Your task to perform on an android device: turn on notifications settings in the gmail app Image 0: 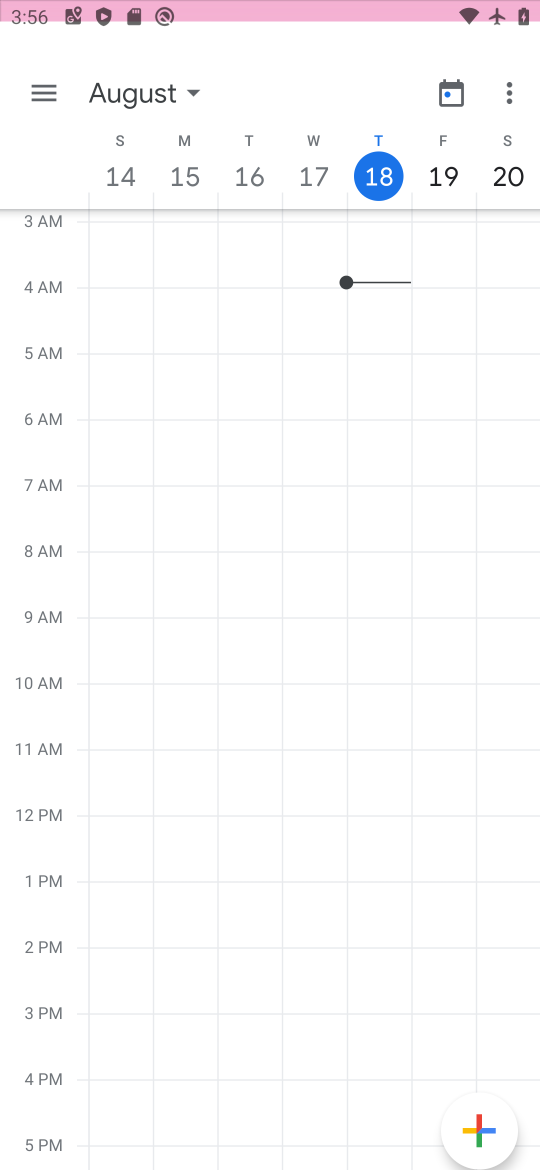
Step 0: click (440, 60)
Your task to perform on an android device: turn on notifications settings in the gmail app Image 1: 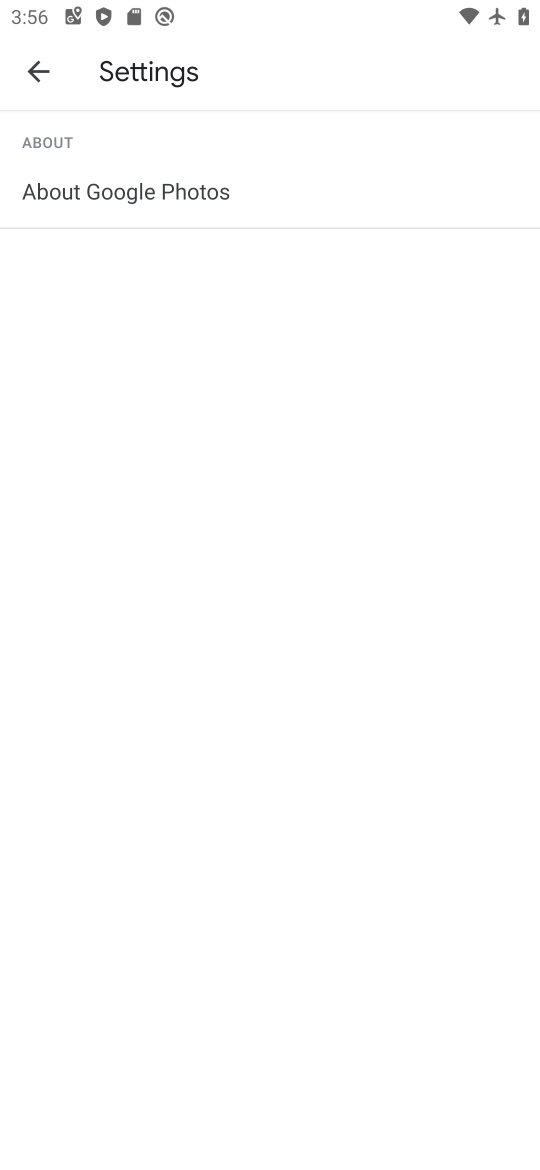
Step 1: press home button
Your task to perform on an android device: turn on notifications settings in the gmail app Image 2: 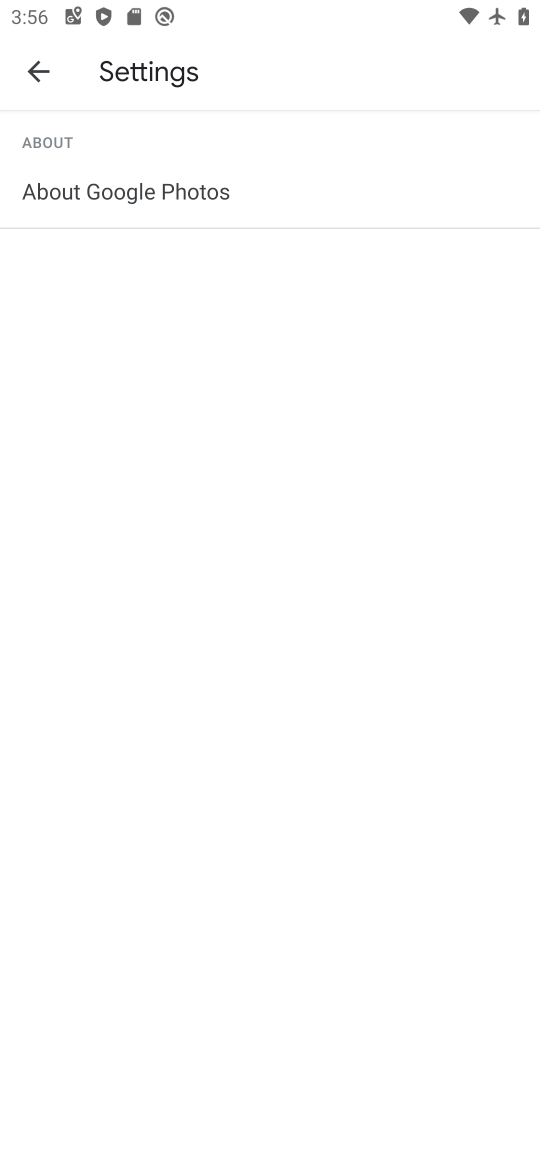
Step 2: press home button
Your task to perform on an android device: turn on notifications settings in the gmail app Image 3: 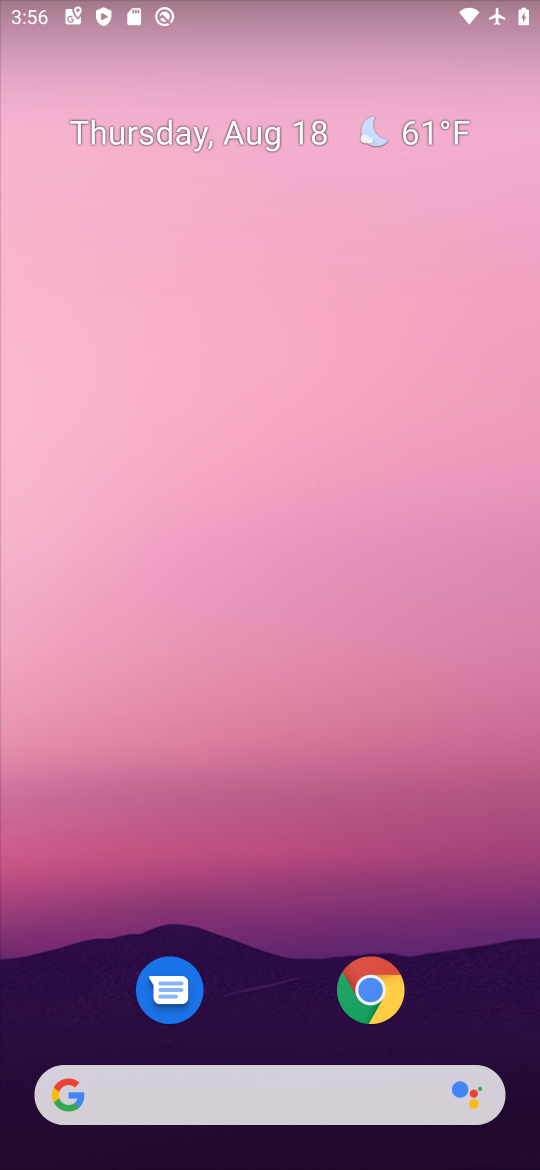
Step 3: drag from (246, 806) to (316, 62)
Your task to perform on an android device: turn on notifications settings in the gmail app Image 4: 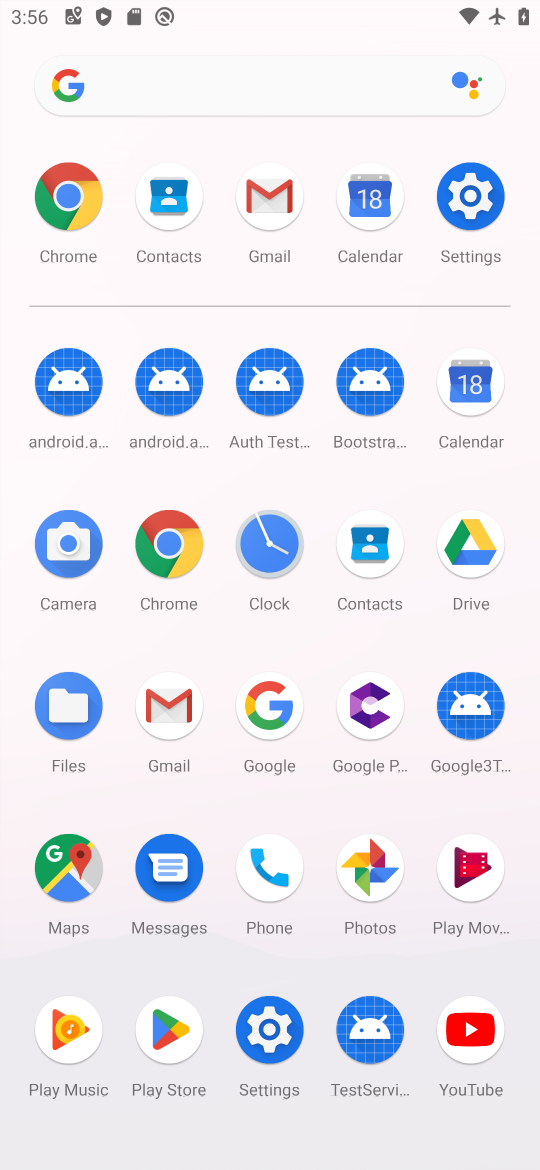
Step 4: click (181, 710)
Your task to perform on an android device: turn on notifications settings in the gmail app Image 5: 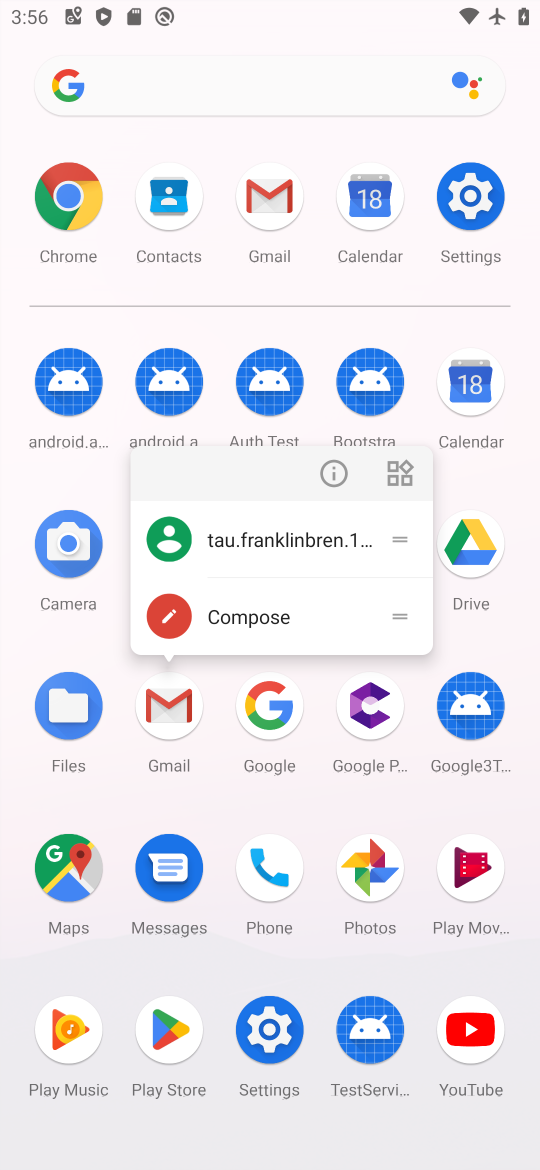
Step 5: click (165, 707)
Your task to perform on an android device: turn on notifications settings in the gmail app Image 6: 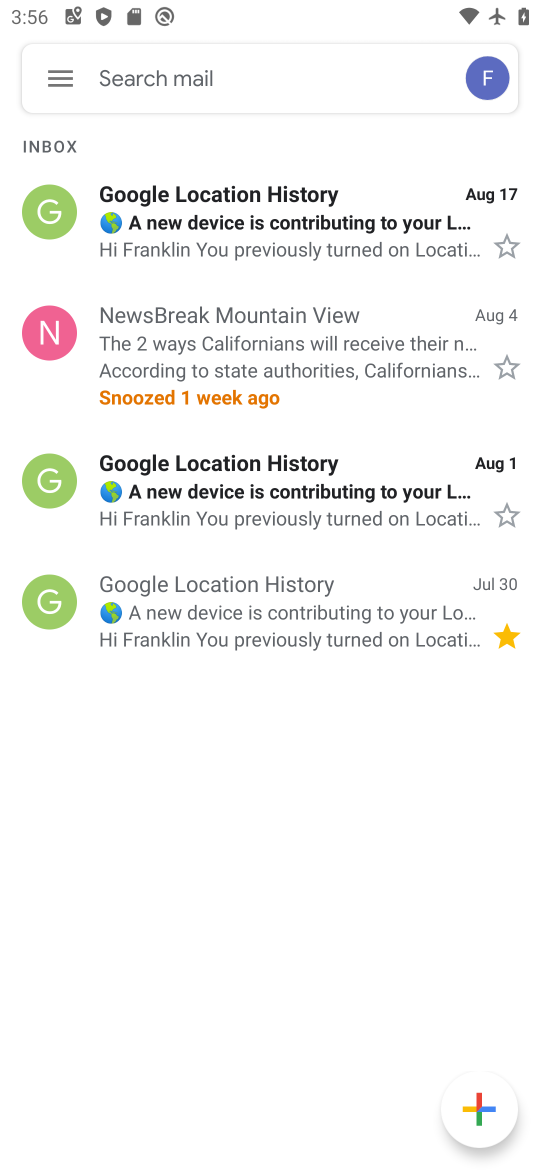
Step 6: click (51, 71)
Your task to perform on an android device: turn on notifications settings in the gmail app Image 7: 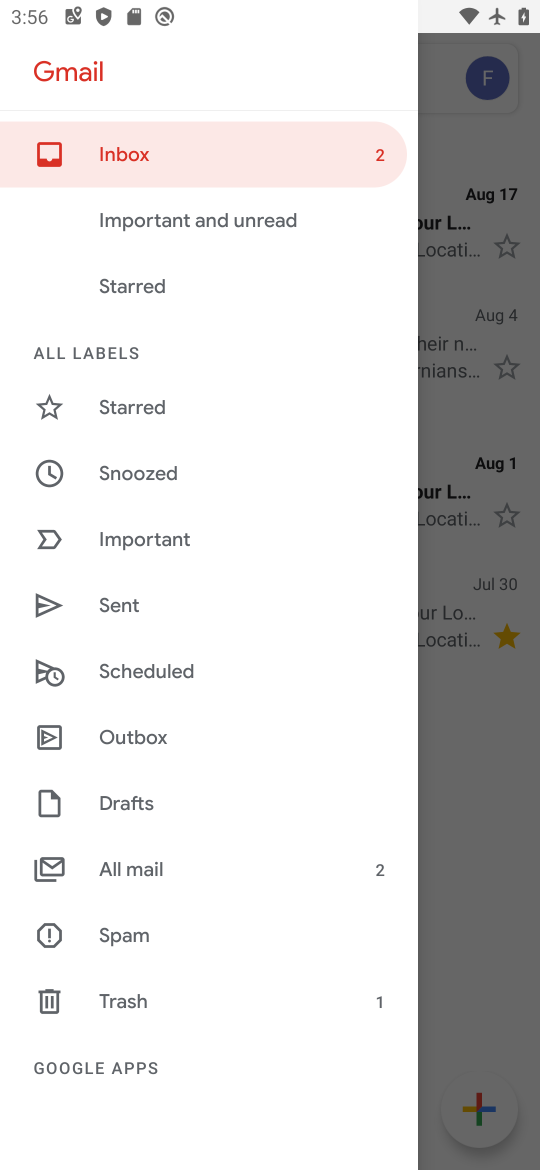
Step 7: drag from (154, 986) to (258, 386)
Your task to perform on an android device: turn on notifications settings in the gmail app Image 8: 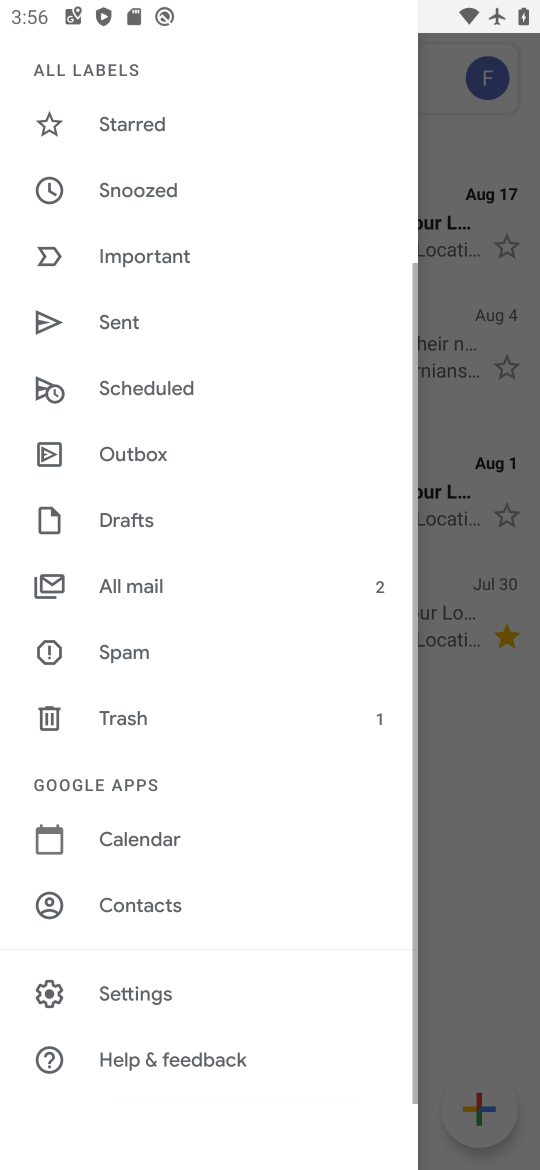
Step 8: click (142, 988)
Your task to perform on an android device: turn on notifications settings in the gmail app Image 9: 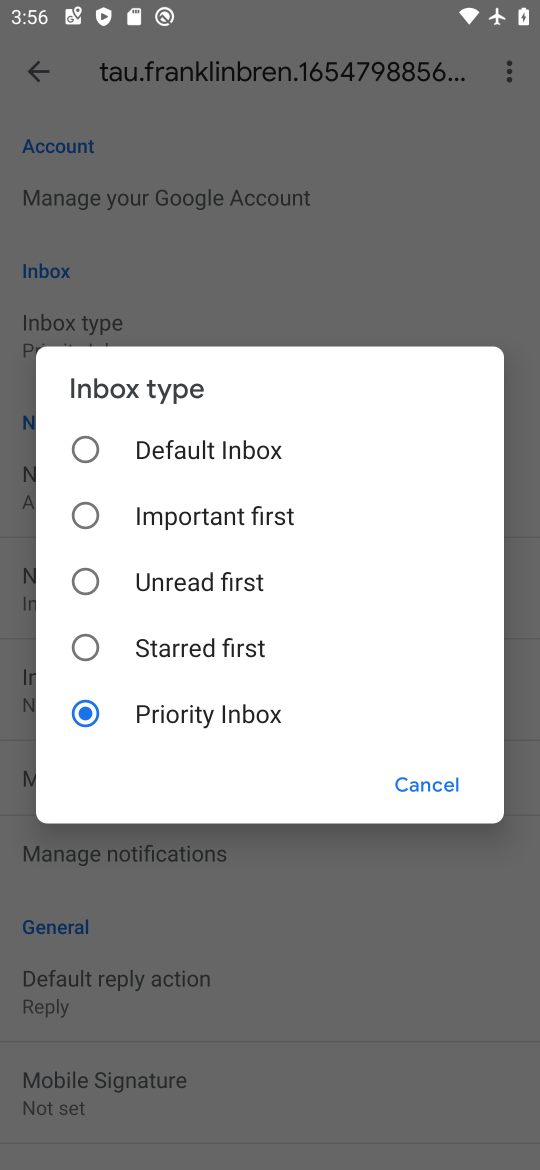
Step 9: click (407, 772)
Your task to perform on an android device: turn on notifications settings in the gmail app Image 10: 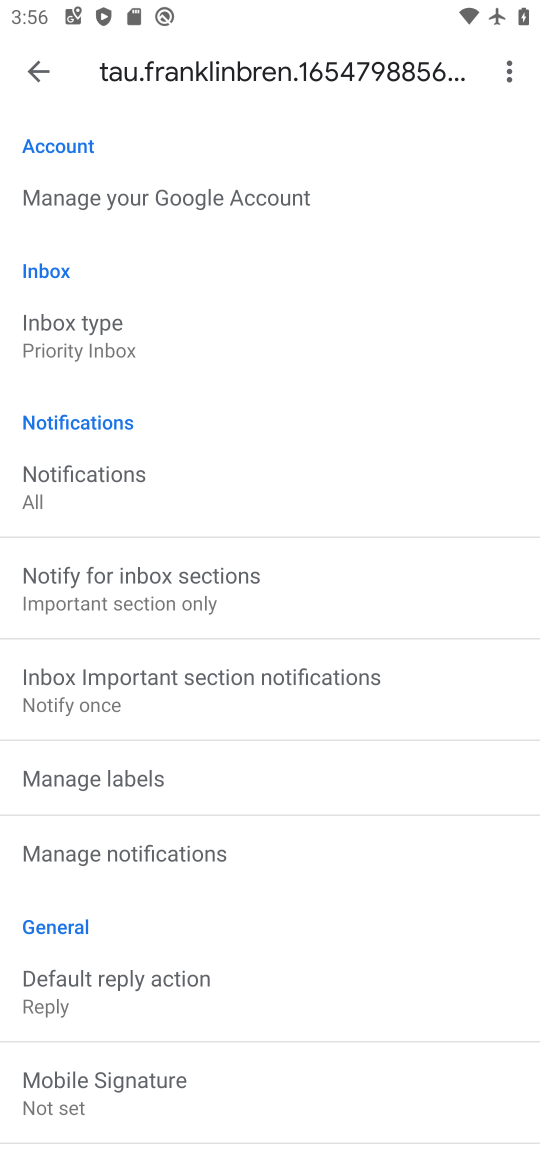
Step 10: click (204, 861)
Your task to perform on an android device: turn on notifications settings in the gmail app Image 11: 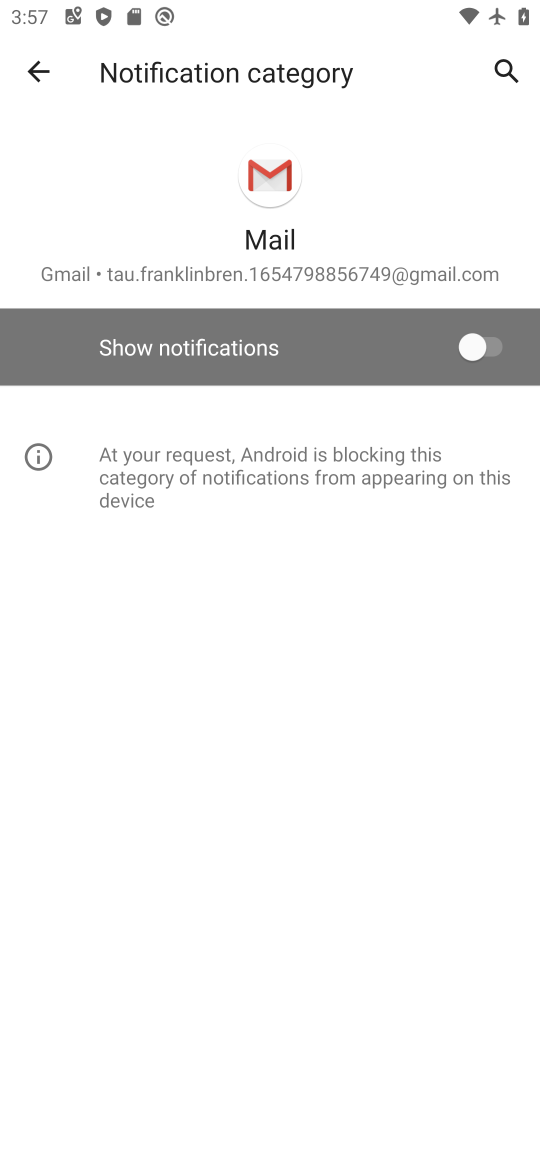
Step 11: click (399, 340)
Your task to perform on an android device: turn on notifications settings in the gmail app Image 12: 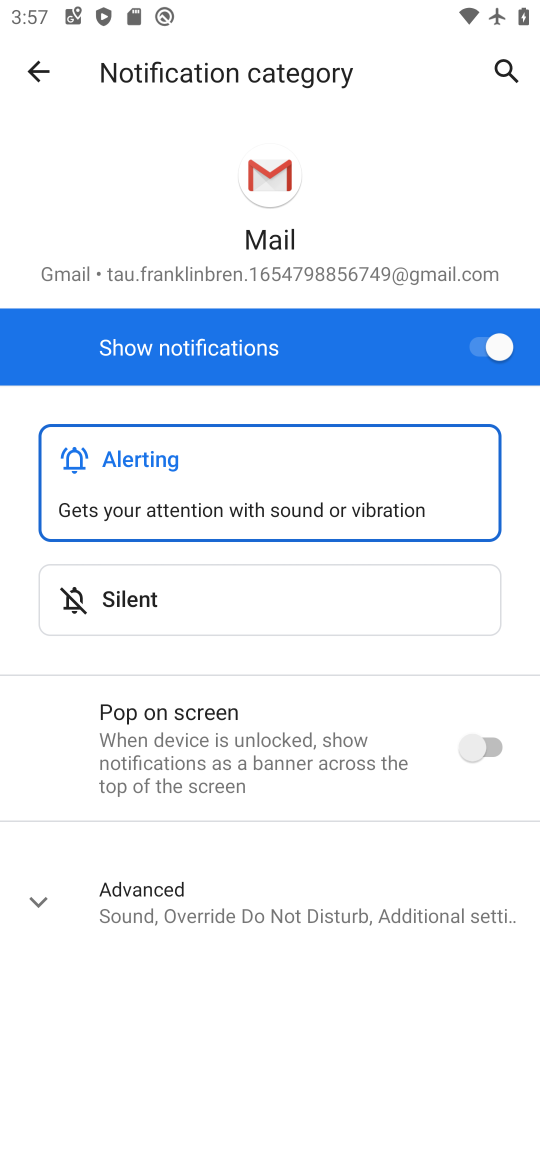
Step 12: task complete